Your task to perform on an android device: turn on priority inbox in the gmail app Image 0: 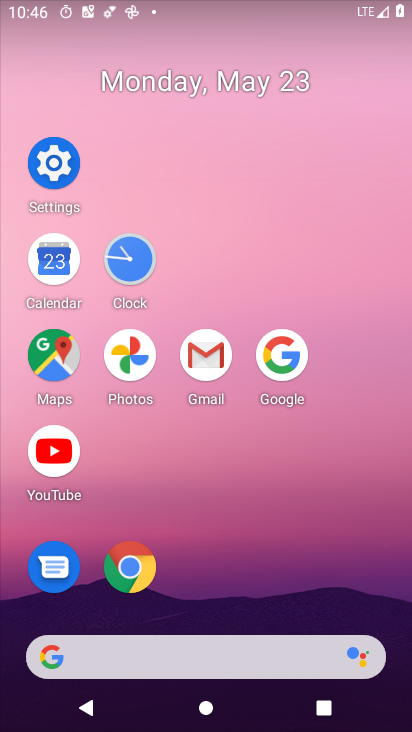
Step 0: click (205, 344)
Your task to perform on an android device: turn on priority inbox in the gmail app Image 1: 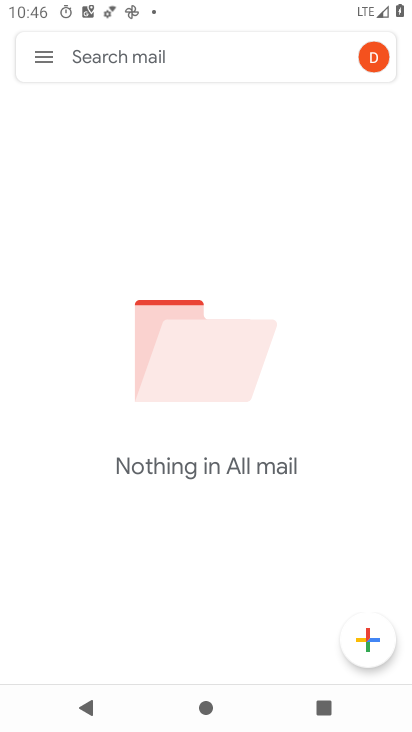
Step 1: click (45, 61)
Your task to perform on an android device: turn on priority inbox in the gmail app Image 2: 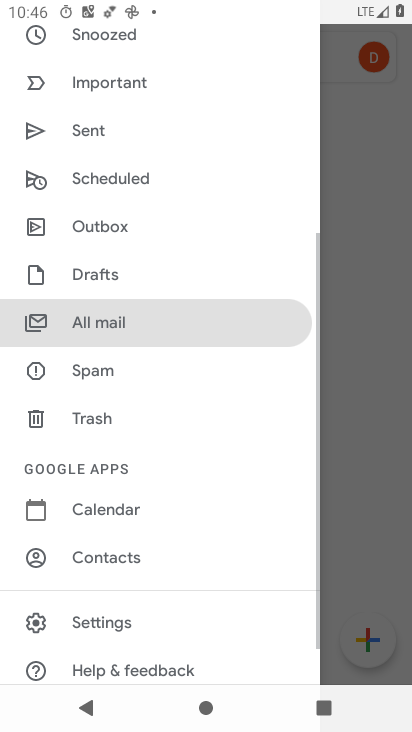
Step 2: click (160, 621)
Your task to perform on an android device: turn on priority inbox in the gmail app Image 3: 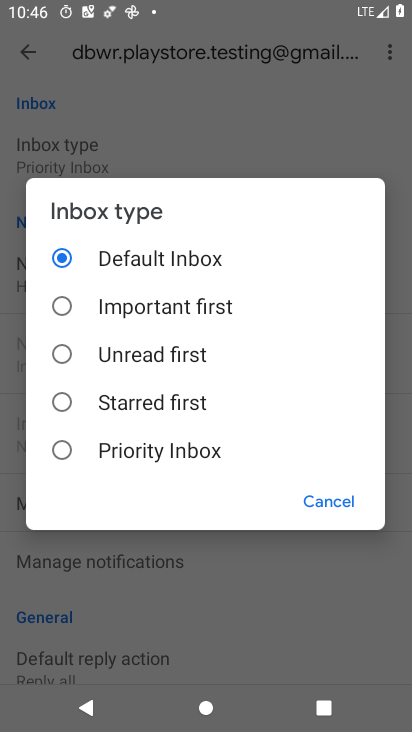
Step 3: click (183, 461)
Your task to perform on an android device: turn on priority inbox in the gmail app Image 4: 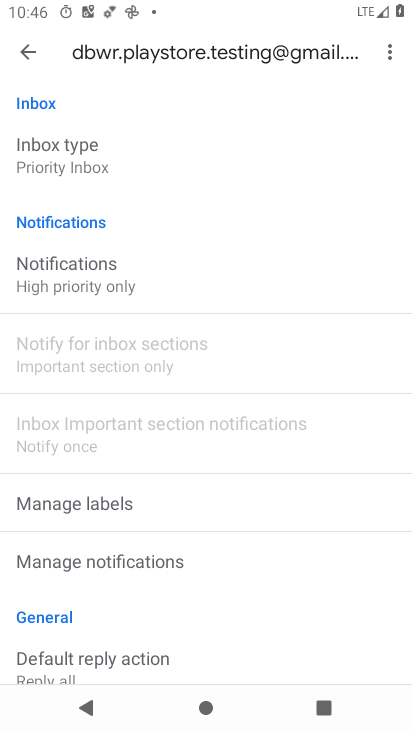
Step 4: task complete